Your task to perform on an android device: Search for a custom-made wallet on Etsy Image 0: 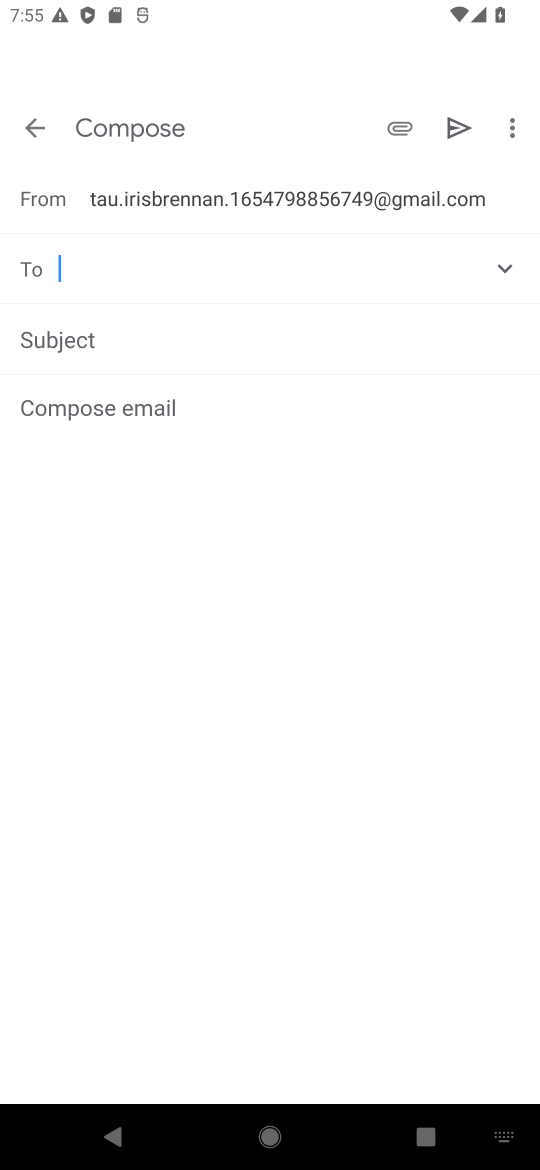
Step 0: press home button
Your task to perform on an android device: Search for a custom-made wallet on Etsy Image 1: 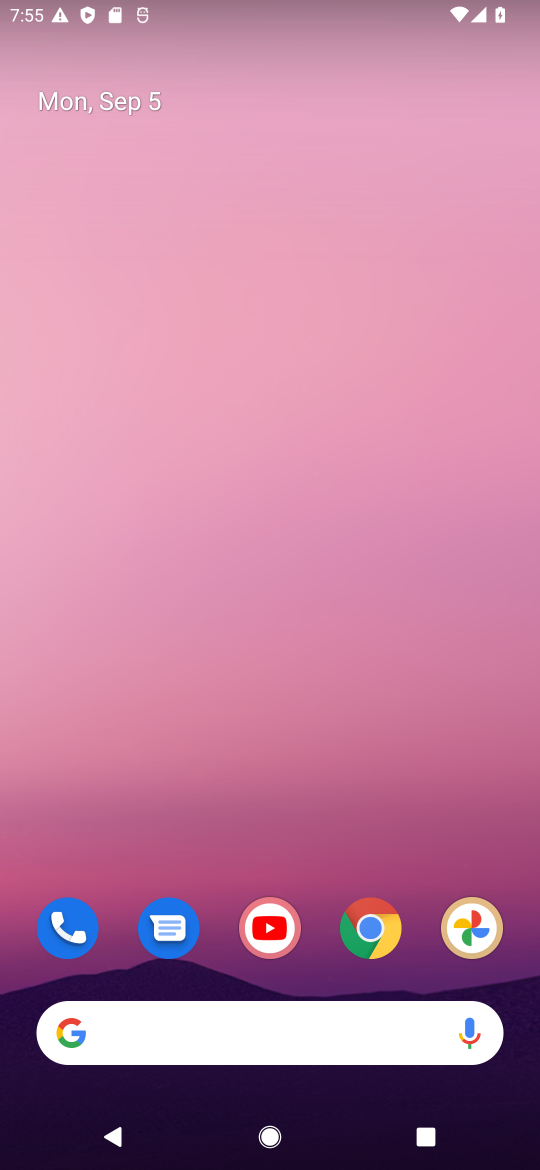
Step 1: click (358, 928)
Your task to perform on an android device: Search for a custom-made wallet on Etsy Image 2: 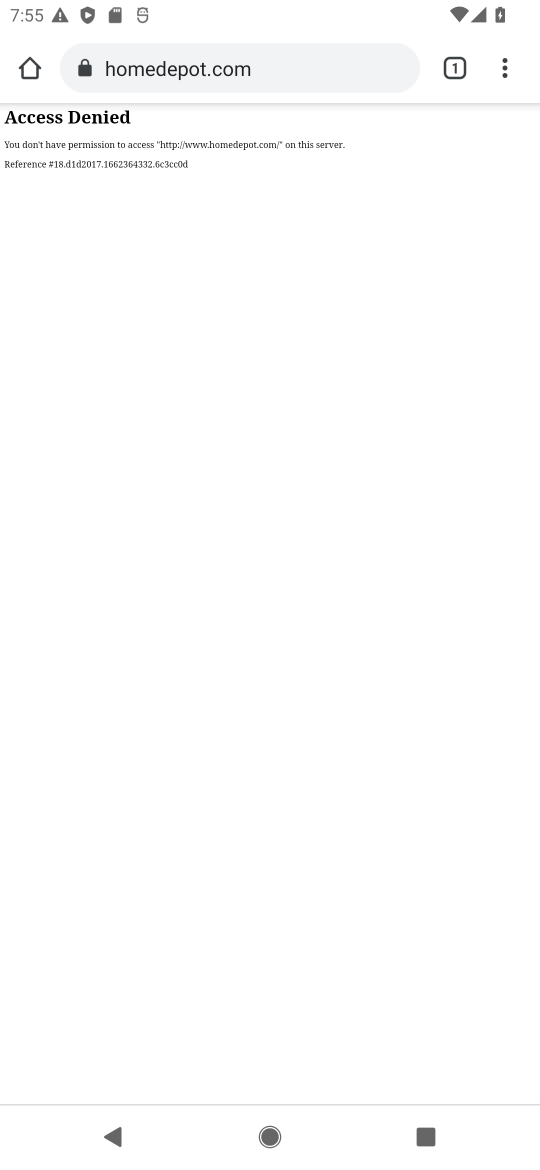
Step 2: click (196, 75)
Your task to perform on an android device: Search for a custom-made wallet on Etsy Image 3: 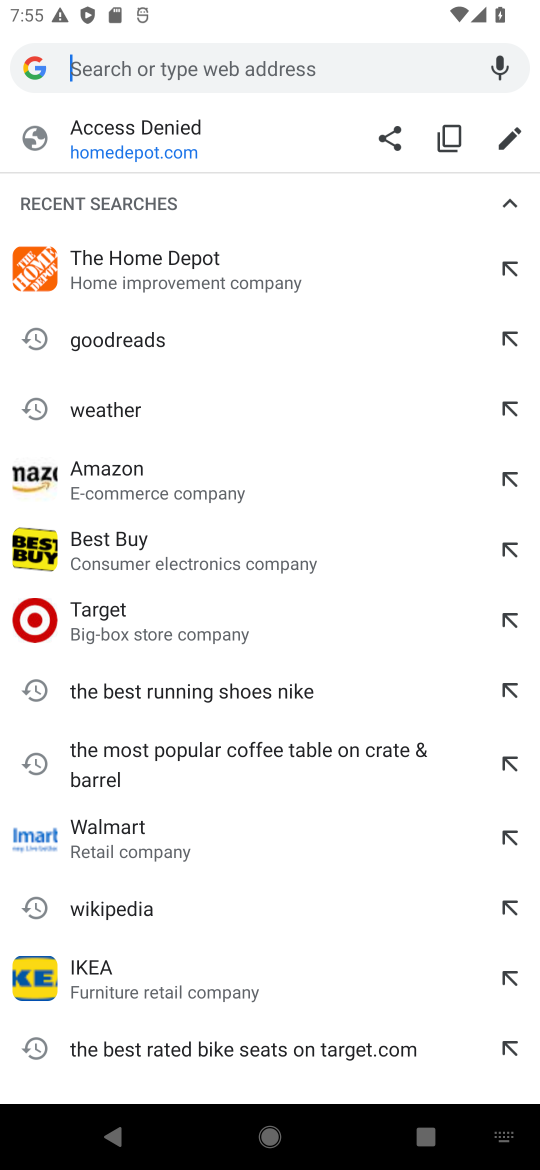
Step 3: type "etsy"
Your task to perform on an android device: Search for a custom-made wallet on Etsy Image 4: 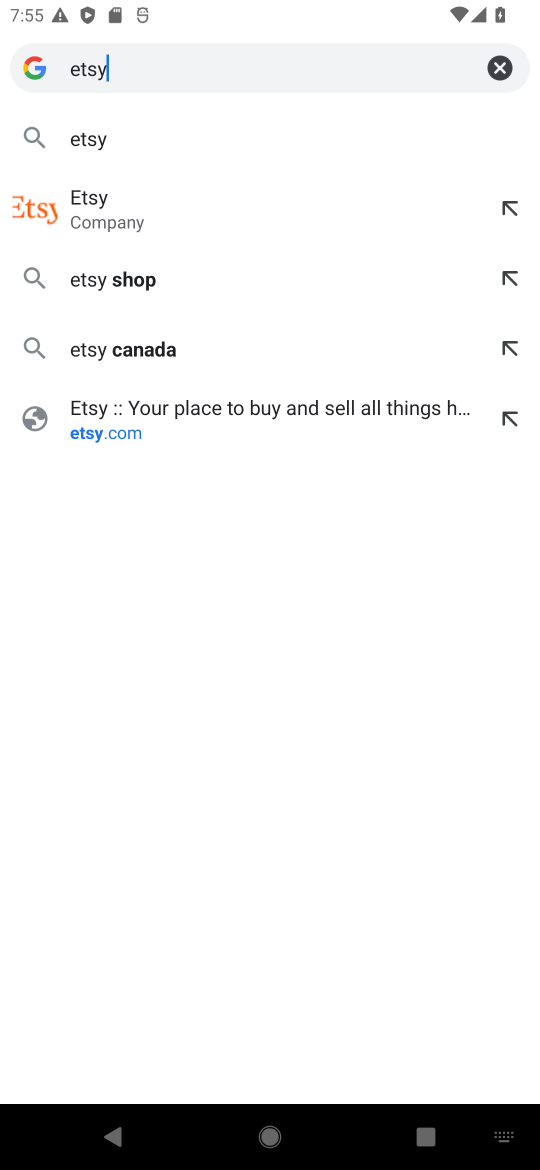
Step 4: click (94, 208)
Your task to perform on an android device: Search for a custom-made wallet on Etsy Image 5: 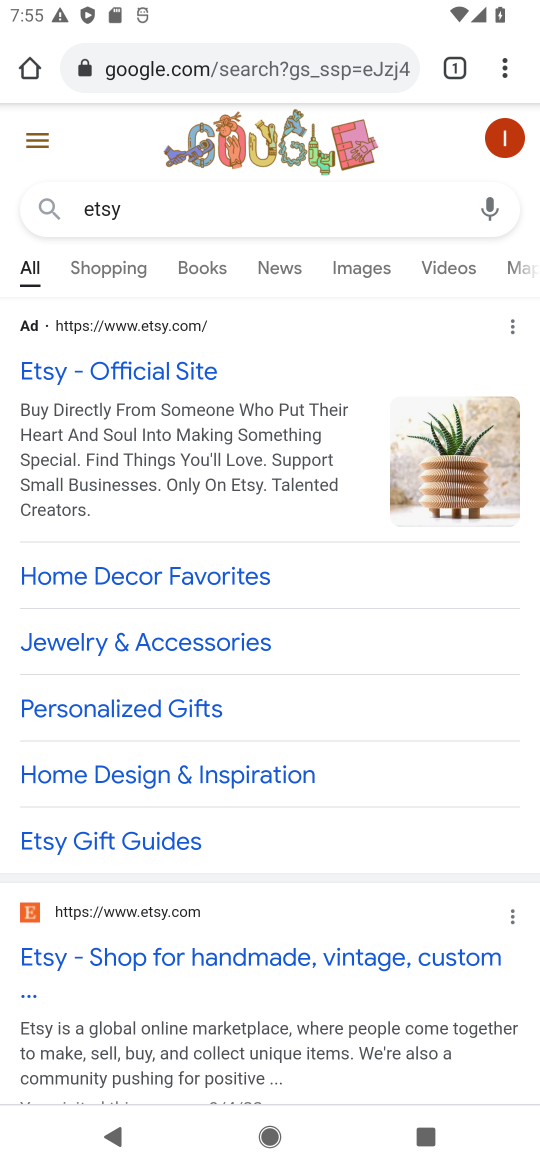
Step 5: click (46, 963)
Your task to perform on an android device: Search for a custom-made wallet on Etsy Image 6: 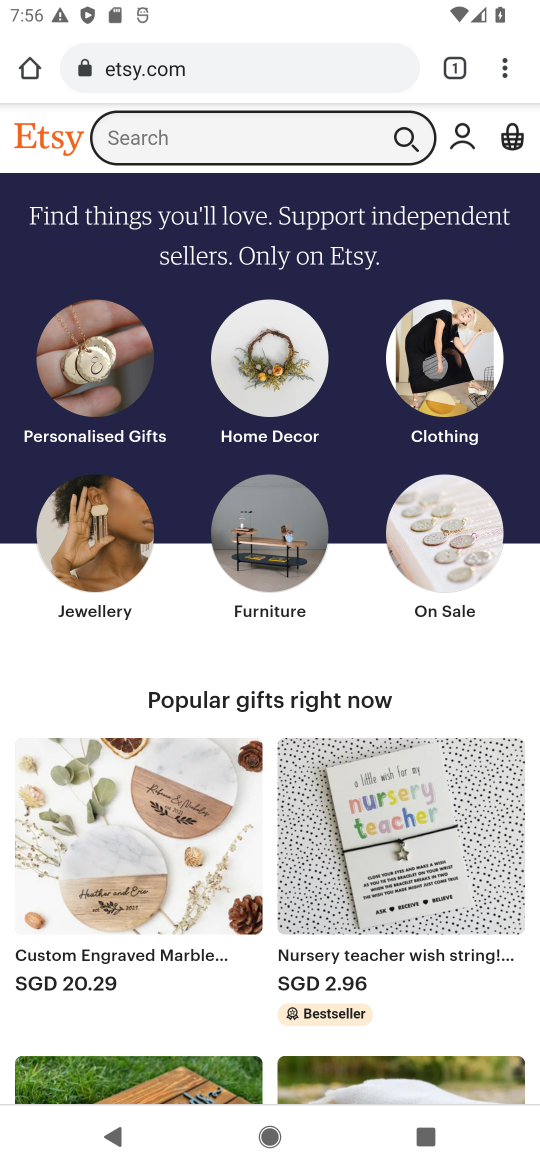
Step 6: click (215, 138)
Your task to perform on an android device: Search for a custom-made wallet on Etsy Image 7: 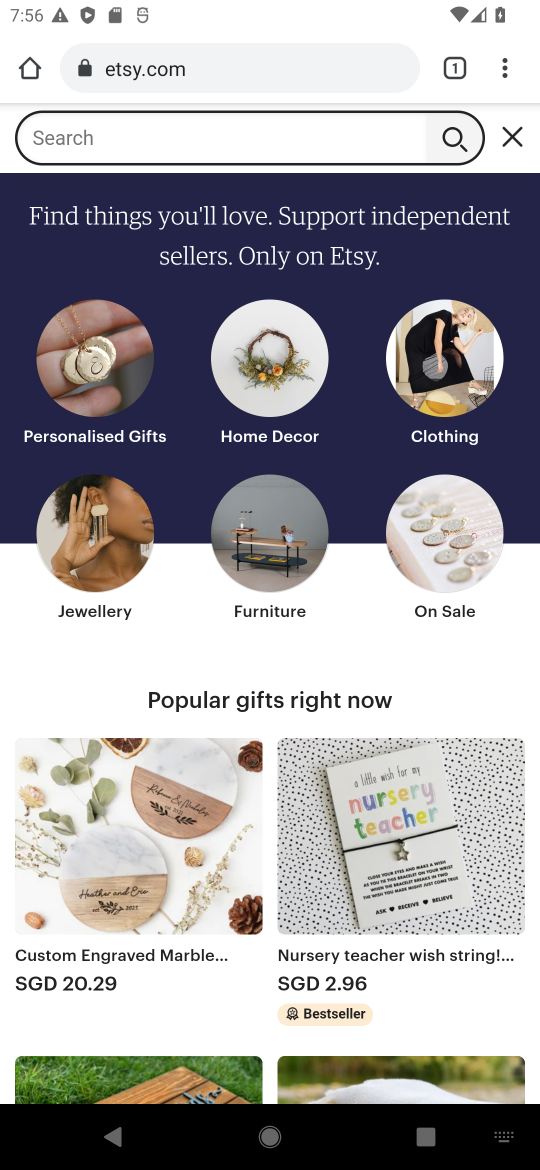
Step 7: click (215, 138)
Your task to perform on an android device: Search for a custom-made wallet on Etsy Image 8: 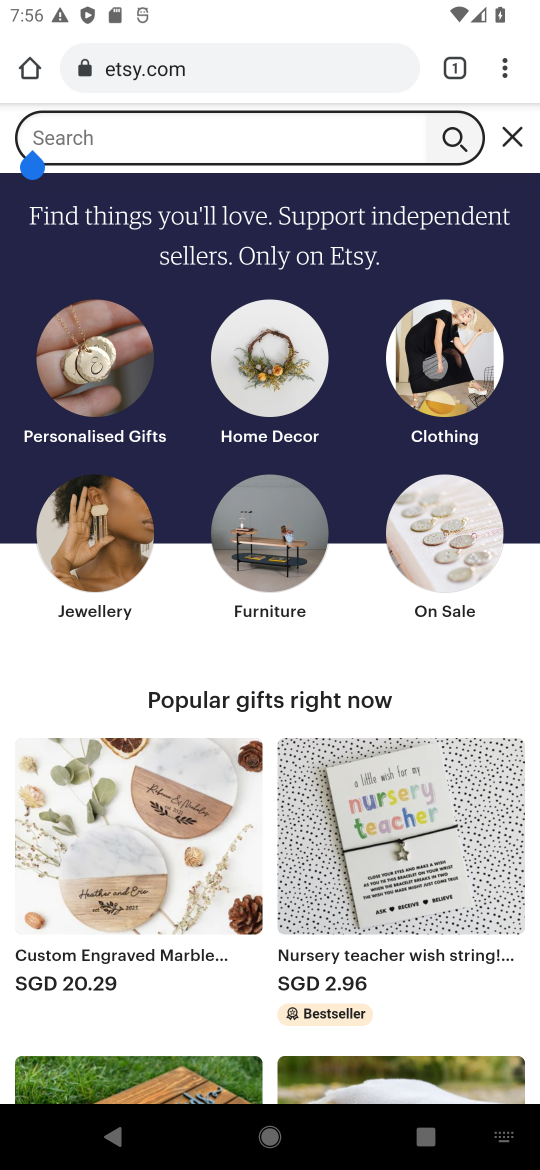
Step 8: type "custom-made wallet"
Your task to perform on an android device: Search for a custom-made wallet on Etsy Image 9: 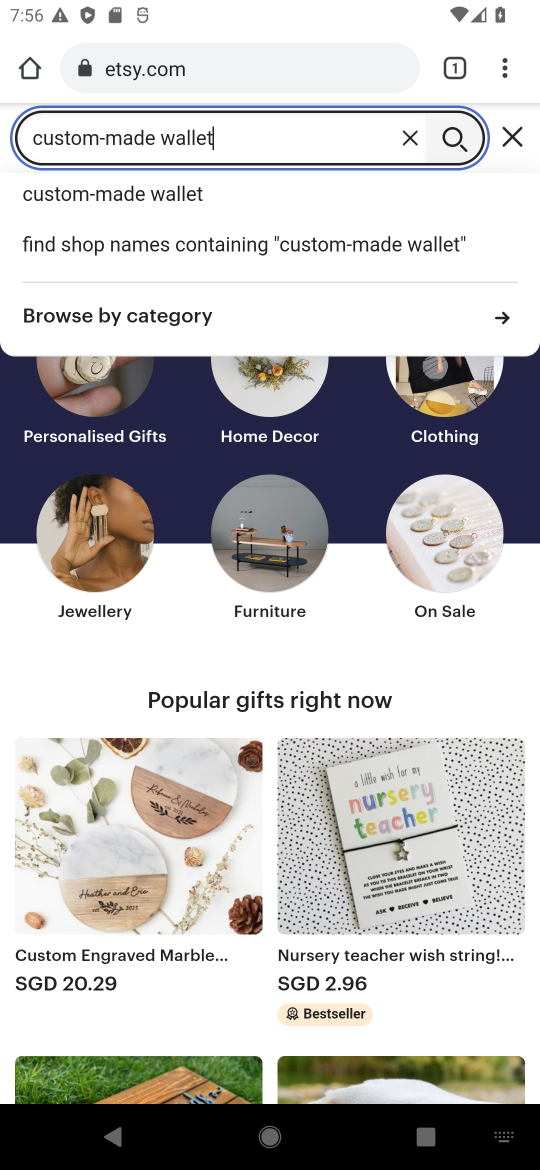
Step 9: click (164, 192)
Your task to perform on an android device: Search for a custom-made wallet on Etsy Image 10: 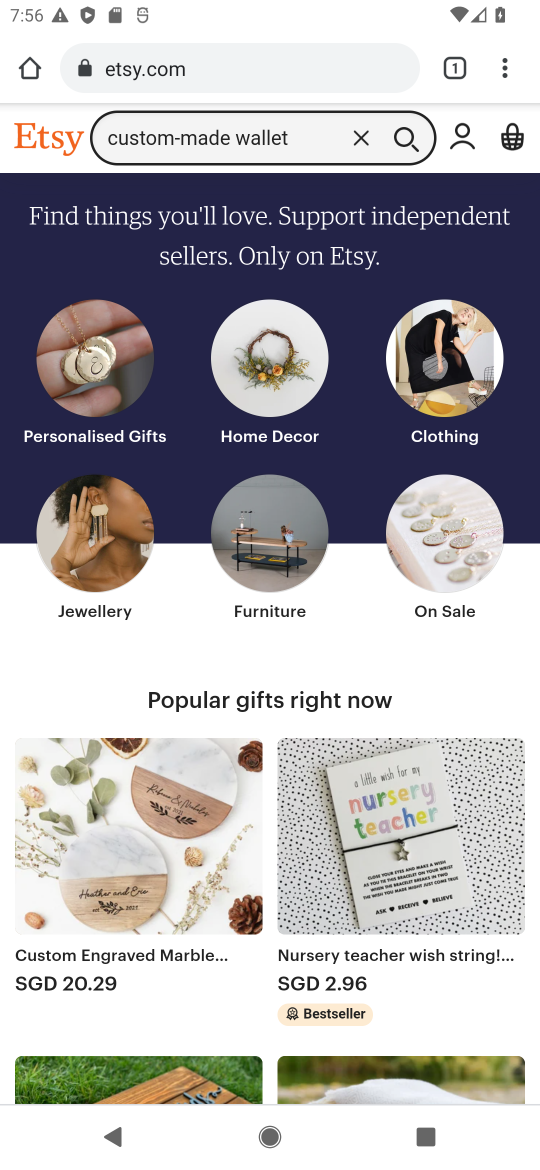
Step 10: task complete